Your task to perform on an android device: Search for a good pizza place on Maps Image 0: 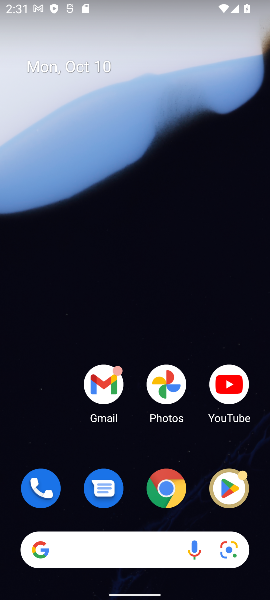
Step 0: drag from (128, 503) to (254, 53)
Your task to perform on an android device: Search for a good pizza place on Maps Image 1: 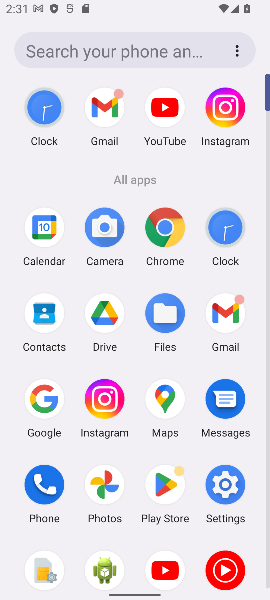
Step 1: click (170, 402)
Your task to perform on an android device: Search for a good pizza place on Maps Image 2: 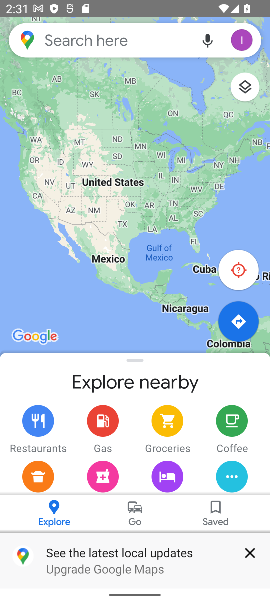
Step 2: click (132, 44)
Your task to perform on an android device: Search for a good pizza place on Maps Image 3: 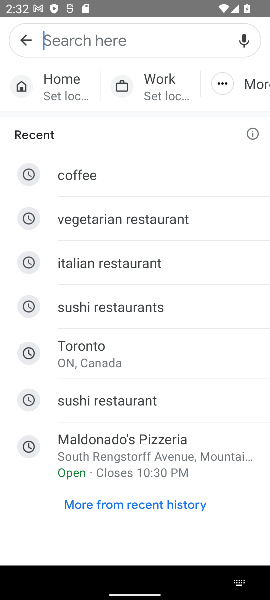
Step 3: click (109, 50)
Your task to perform on an android device: Search for a good pizza place on Maps Image 4: 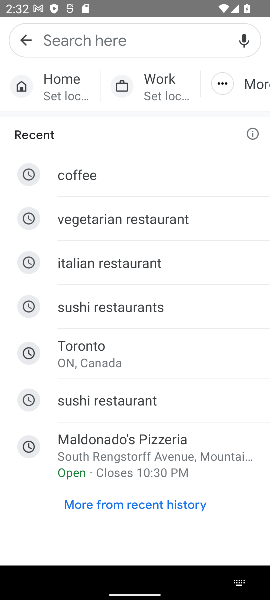
Step 4: type "good pizza place "
Your task to perform on an android device: Search for a good pizza place on Maps Image 5: 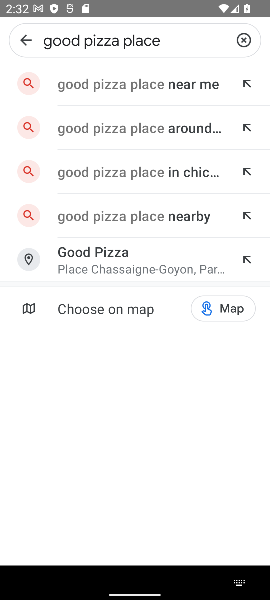
Step 5: click (117, 92)
Your task to perform on an android device: Search for a good pizza place on Maps Image 6: 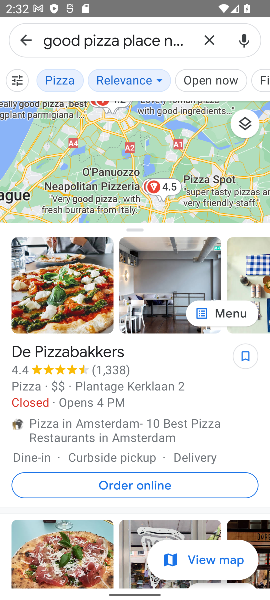
Step 6: task complete